Your task to perform on an android device: Go to Wikipedia Image 0: 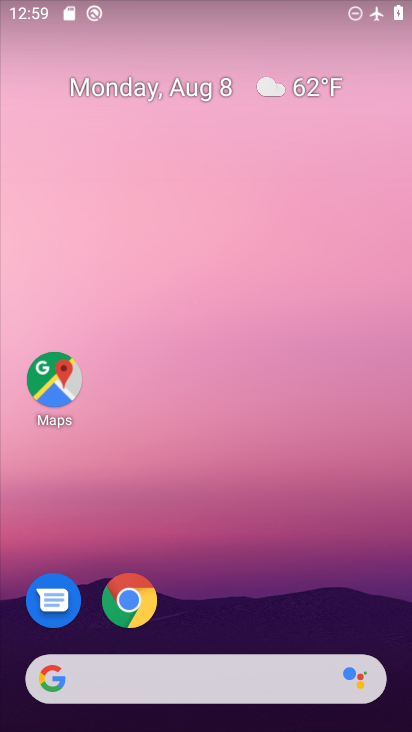
Step 0: click (142, 614)
Your task to perform on an android device: Go to Wikipedia Image 1: 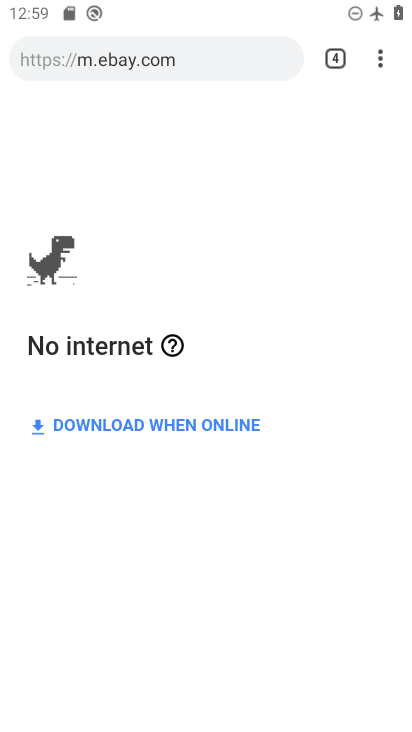
Step 1: click (324, 74)
Your task to perform on an android device: Go to Wikipedia Image 2: 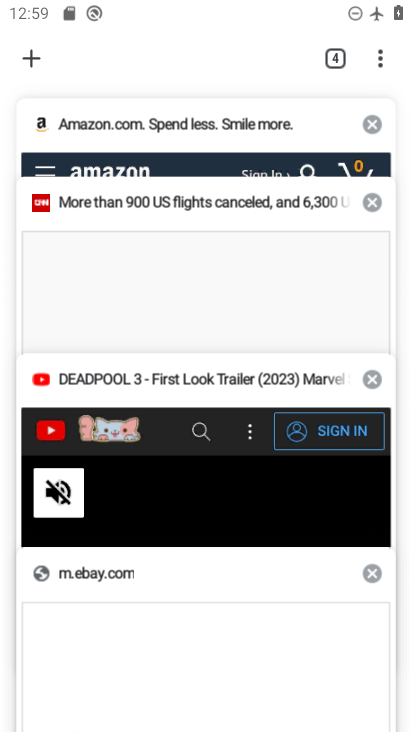
Step 2: click (41, 52)
Your task to perform on an android device: Go to Wikipedia Image 3: 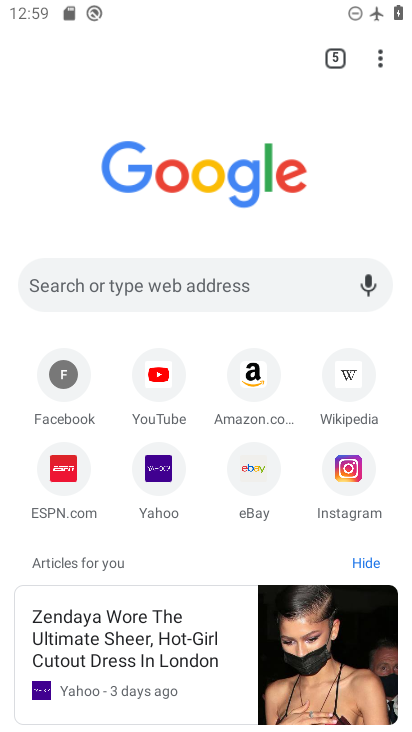
Step 3: click (327, 395)
Your task to perform on an android device: Go to Wikipedia Image 4: 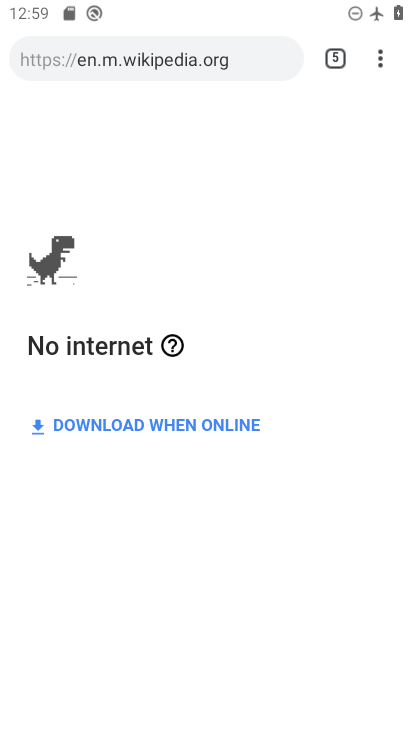
Step 4: task complete